Your task to perform on an android device: Clear all items from cart on walmart.com. Add "bose soundlink mini" to the cart on walmart.com, then select checkout. Image 0: 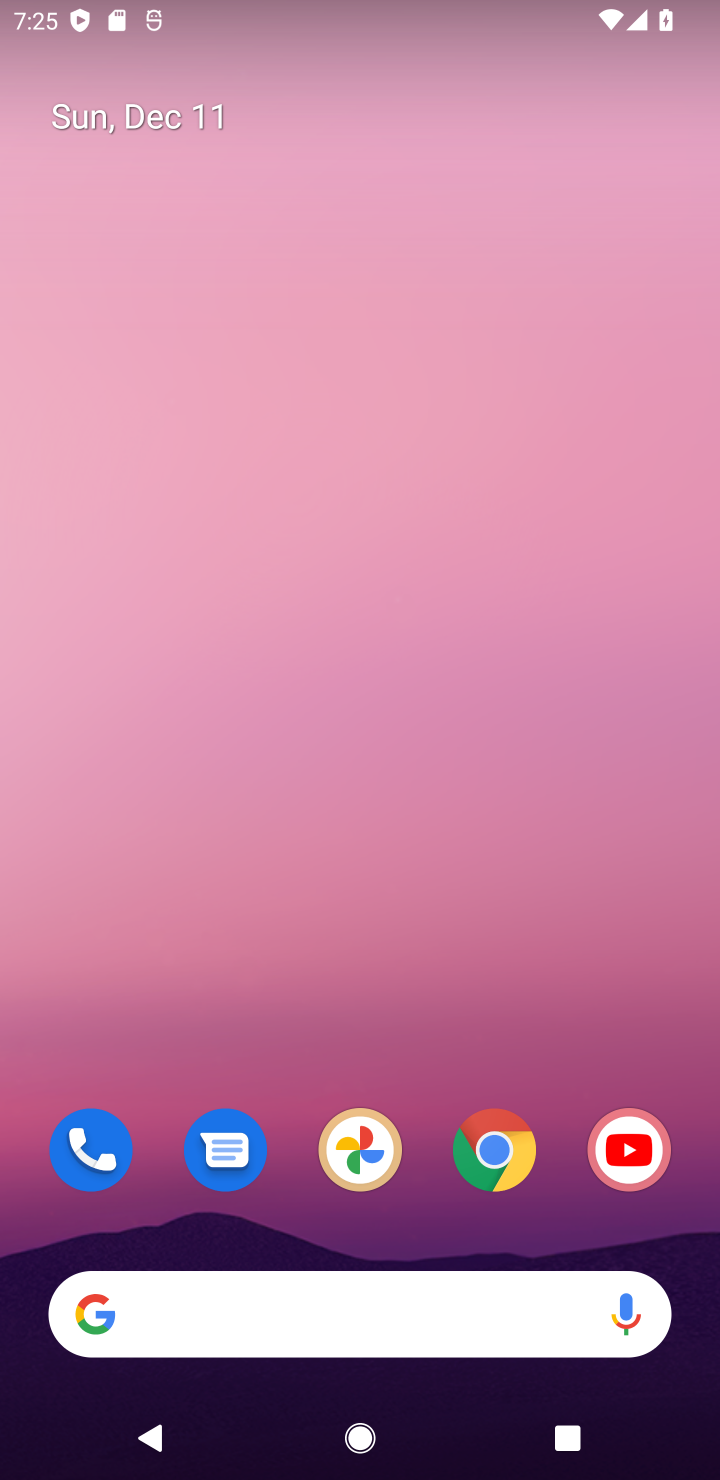
Step 0: click (493, 1154)
Your task to perform on an android device: Clear all items from cart on walmart.com. Add "bose soundlink mini" to the cart on walmart.com, then select checkout. Image 1: 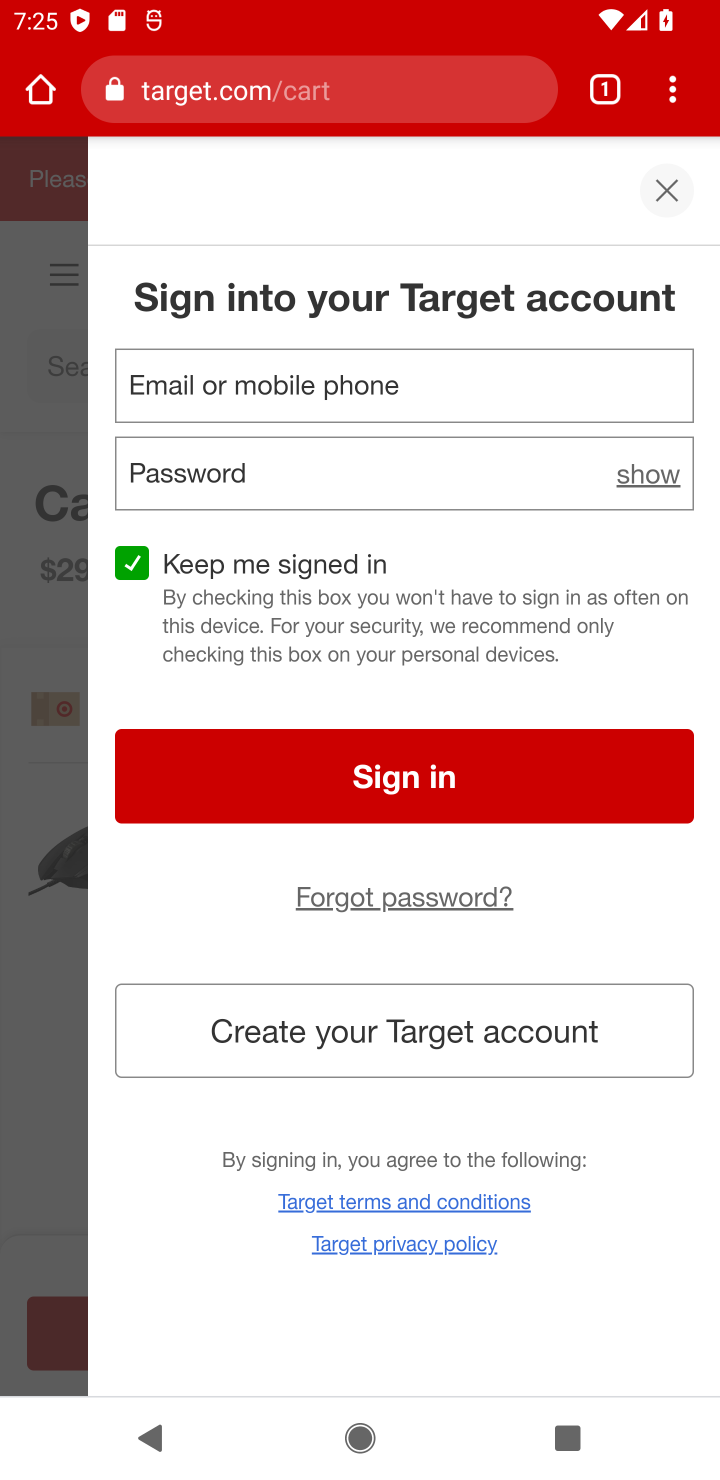
Step 1: click (459, 91)
Your task to perform on an android device: Clear all items from cart on walmart.com. Add "bose soundlink mini" to the cart on walmart.com, then select checkout. Image 2: 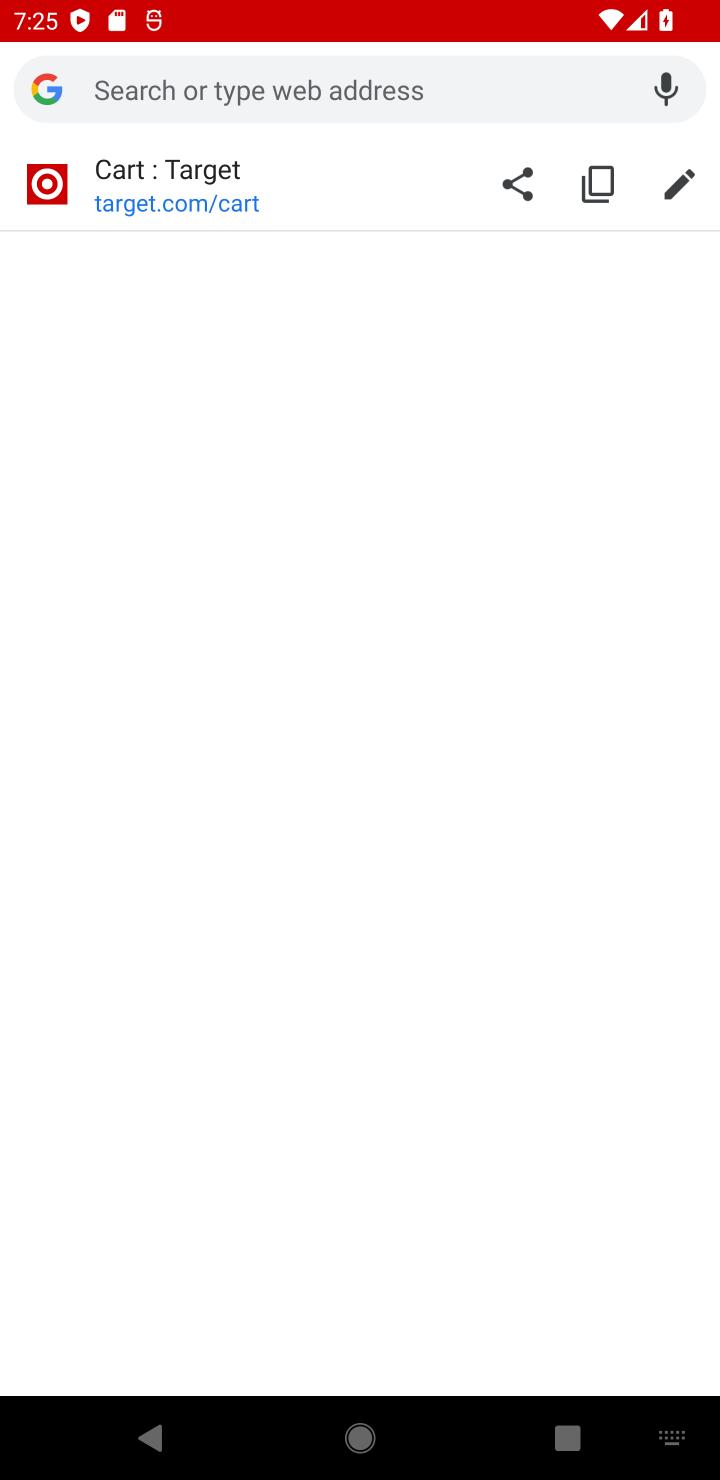
Step 2: type "walmart.com"
Your task to perform on an android device: Clear all items from cart on walmart.com. Add "bose soundlink mini" to the cart on walmart.com, then select checkout. Image 3: 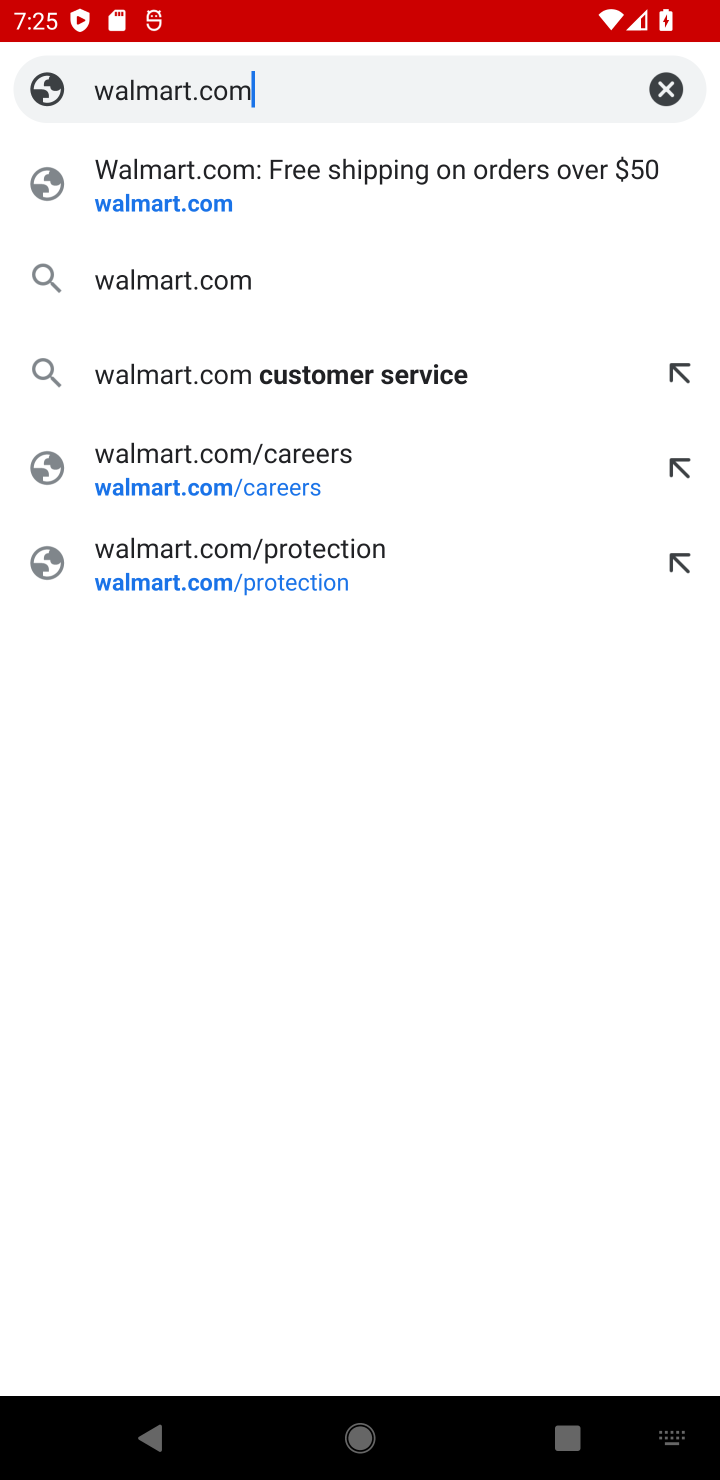
Step 3: click (213, 210)
Your task to perform on an android device: Clear all items from cart on walmart.com. Add "bose soundlink mini" to the cart on walmart.com, then select checkout. Image 4: 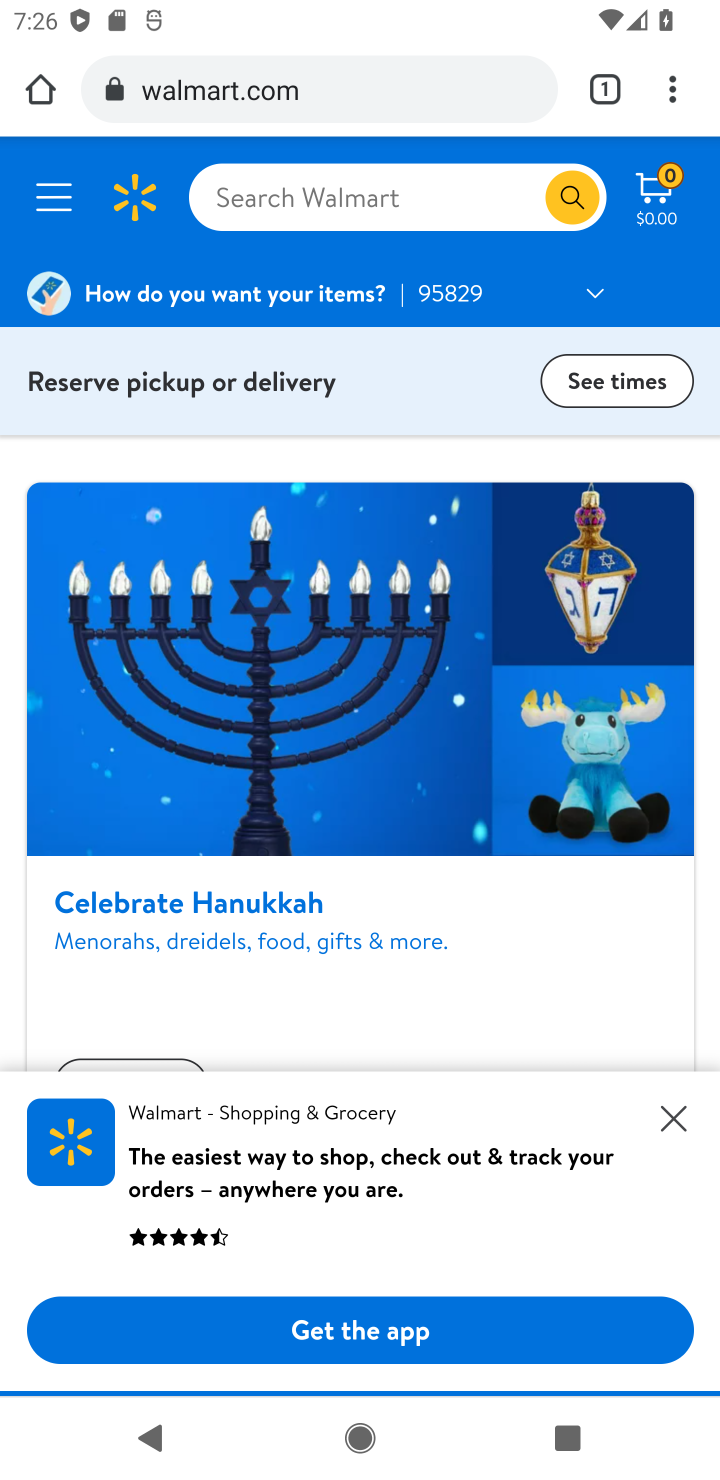
Step 4: click (663, 202)
Your task to perform on an android device: Clear all items from cart on walmart.com. Add "bose soundlink mini" to the cart on walmart.com, then select checkout. Image 5: 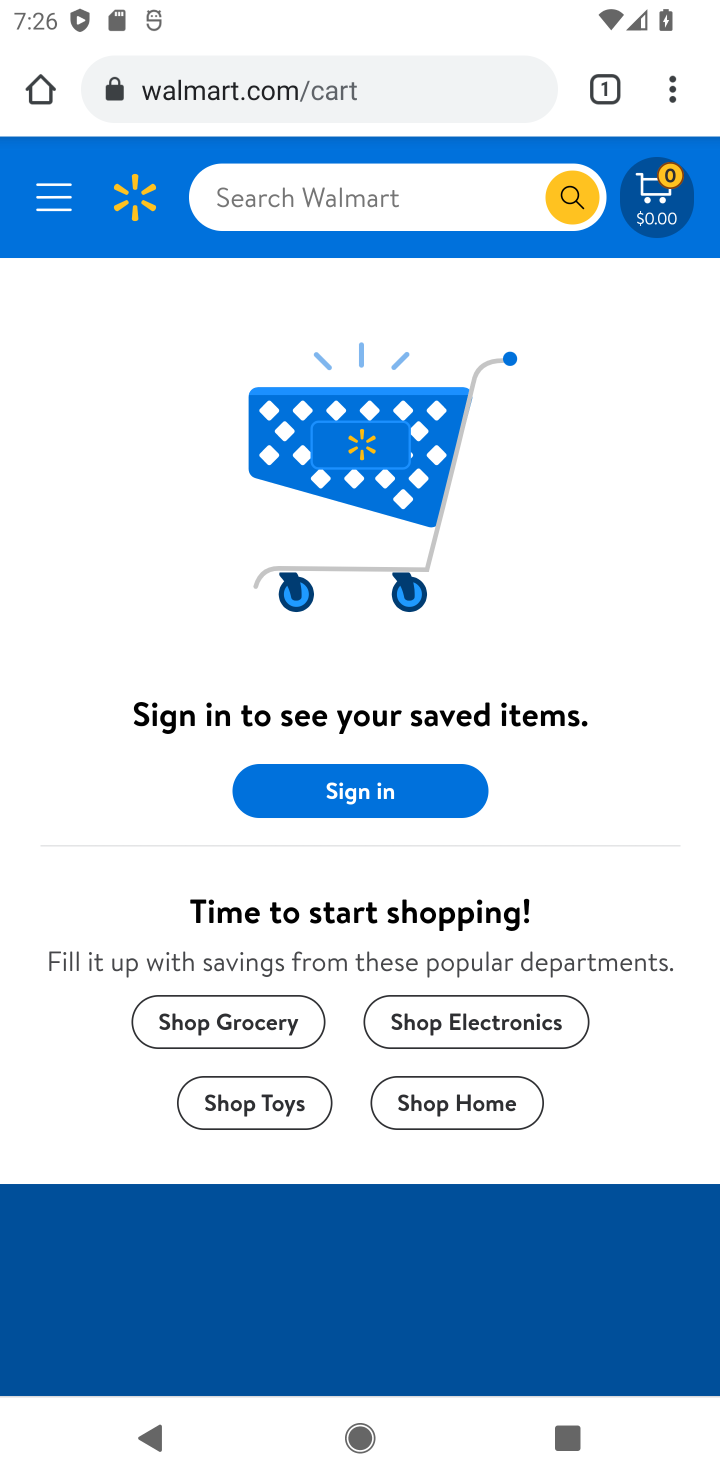
Step 5: click (442, 224)
Your task to perform on an android device: Clear all items from cart on walmart.com. Add "bose soundlink mini" to the cart on walmart.com, then select checkout. Image 6: 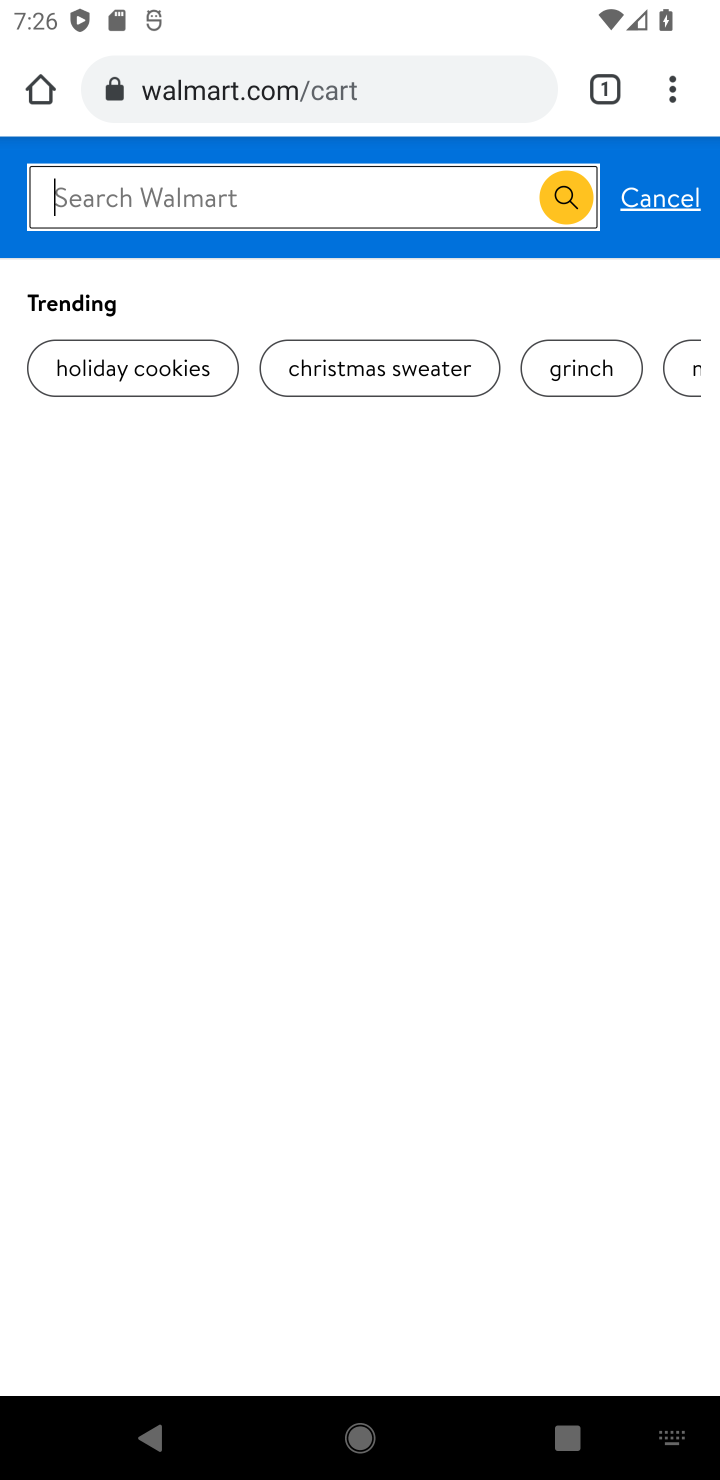
Step 6: type "bose soundlink mini"
Your task to perform on an android device: Clear all items from cart on walmart.com. Add "bose soundlink mini" to the cart on walmart.com, then select checkout. Image 7: 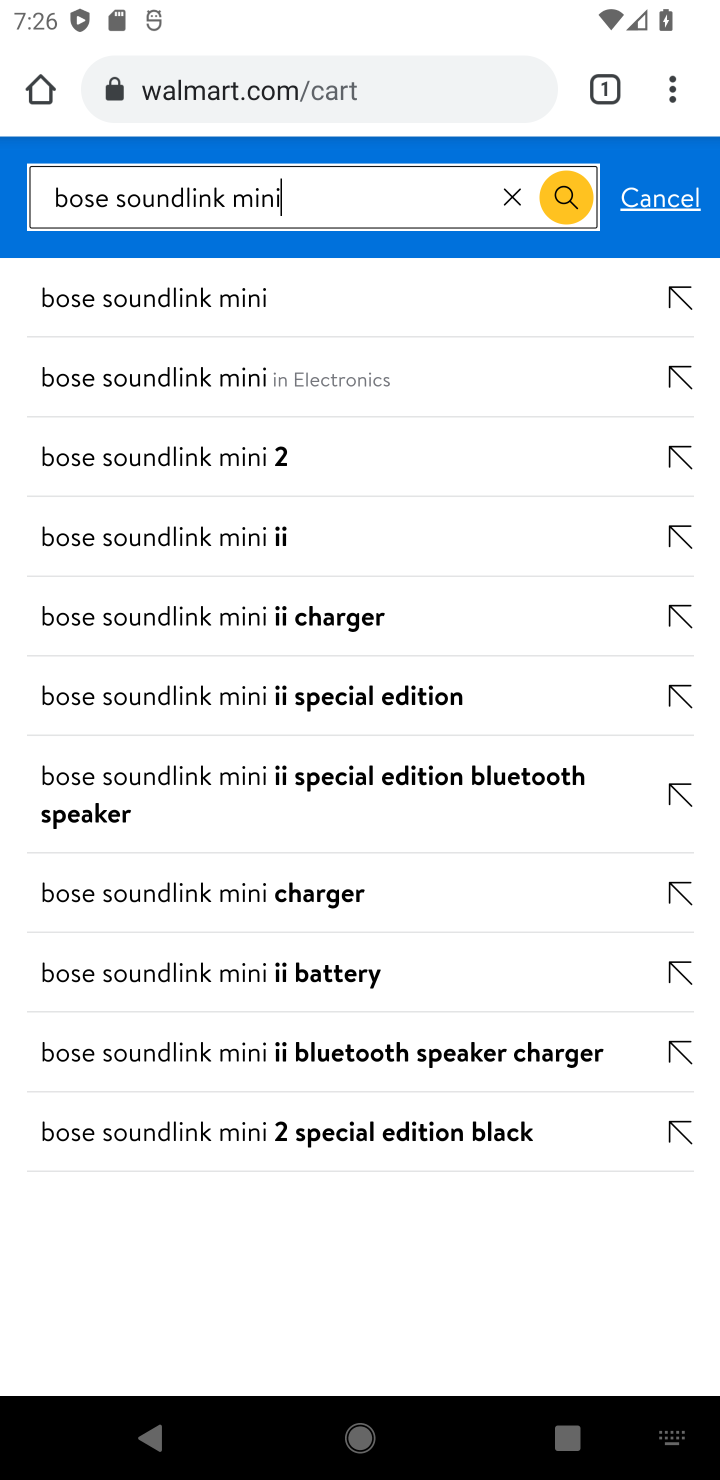
Step 7: click (212, 292)
Your task to perform on an android device: Clear all items from cart on walmart.com. Add "bose soundlink mini" to the cart on walmart.com, then select checkout. Image 8: 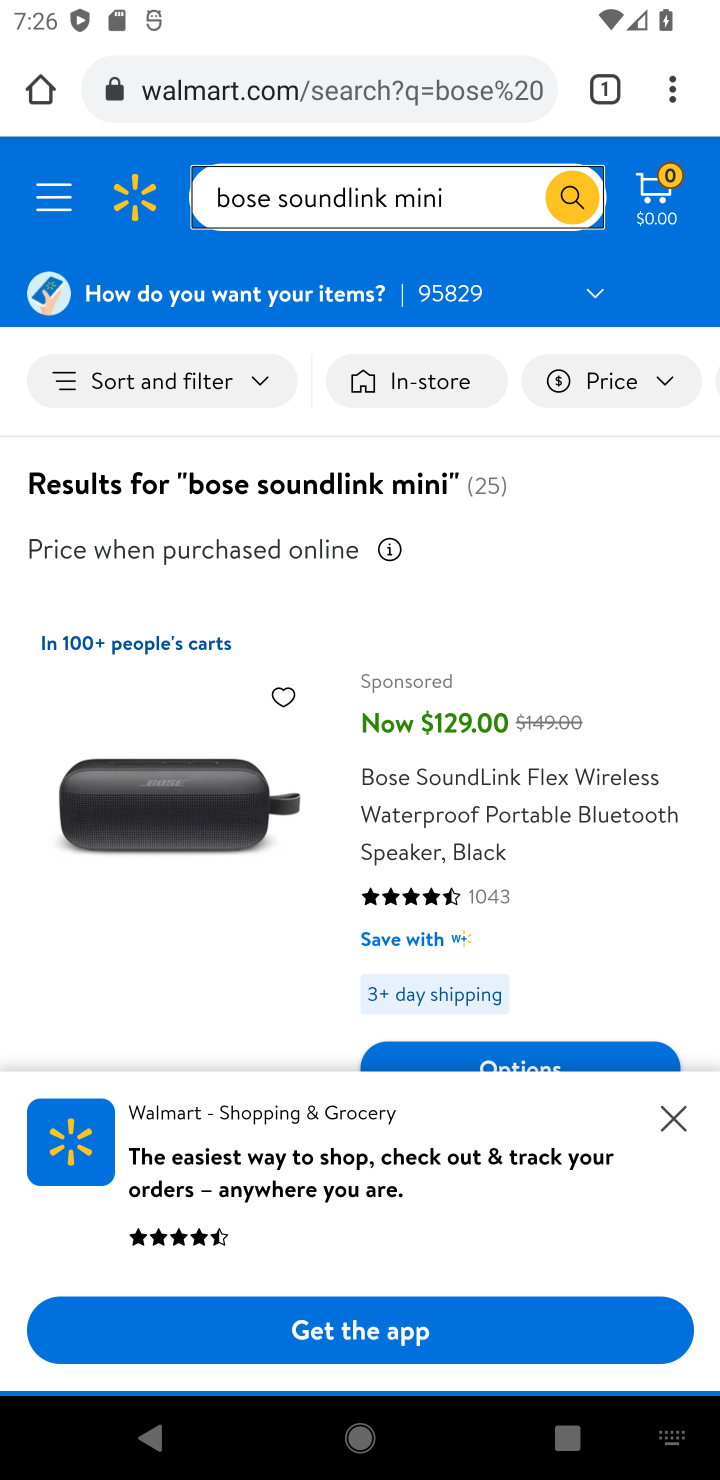
Step 8: click (665, 1125)
Your task to perform on an android device: Clear all items from cart on walmart.com. Add "bose soundlink mini" to the cart on walmart.com, then select checkout. Image 9: 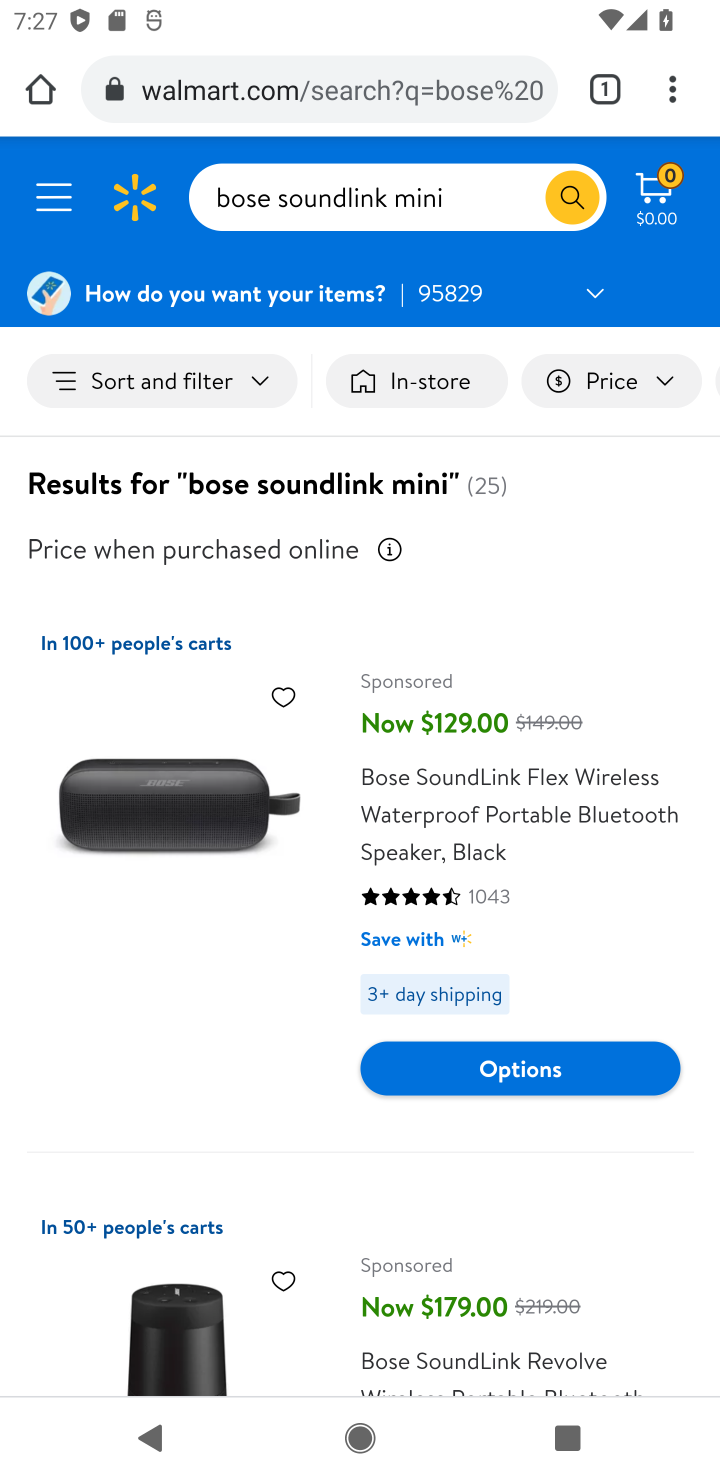
Step 9: drag from (375, 1188) to (438, 714)
Your task to perform on an android device: Clear all items from cart on walmart.com. Add "bose soundlink mini" to the cart on walmart.com, then select checkout. Image 10: 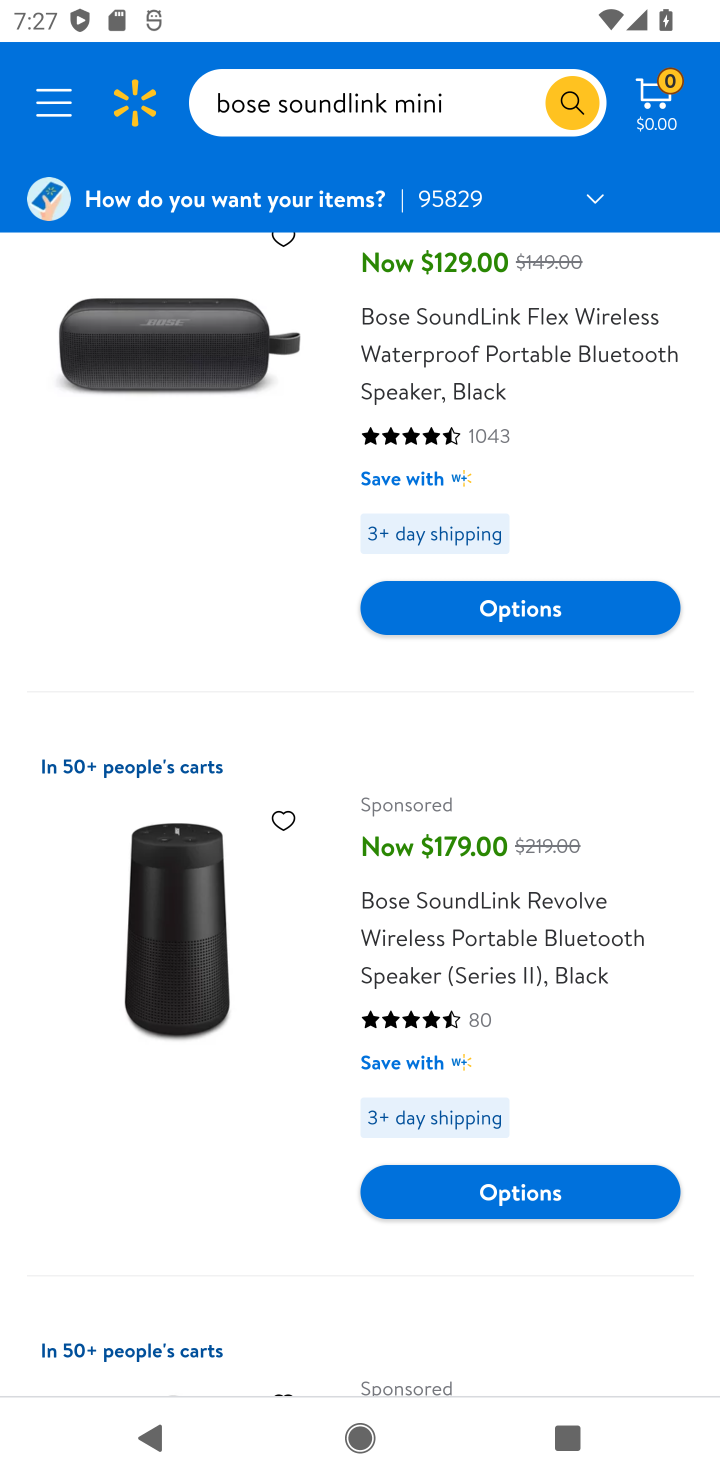
Step 10: drag from (426, 1318) to (498, 810)
Your task to perform on an android device: Clear all items from cart on walmart.com. Add "bose soundlink mini" to the cart on walmart.com, then select checkout. Image 11: 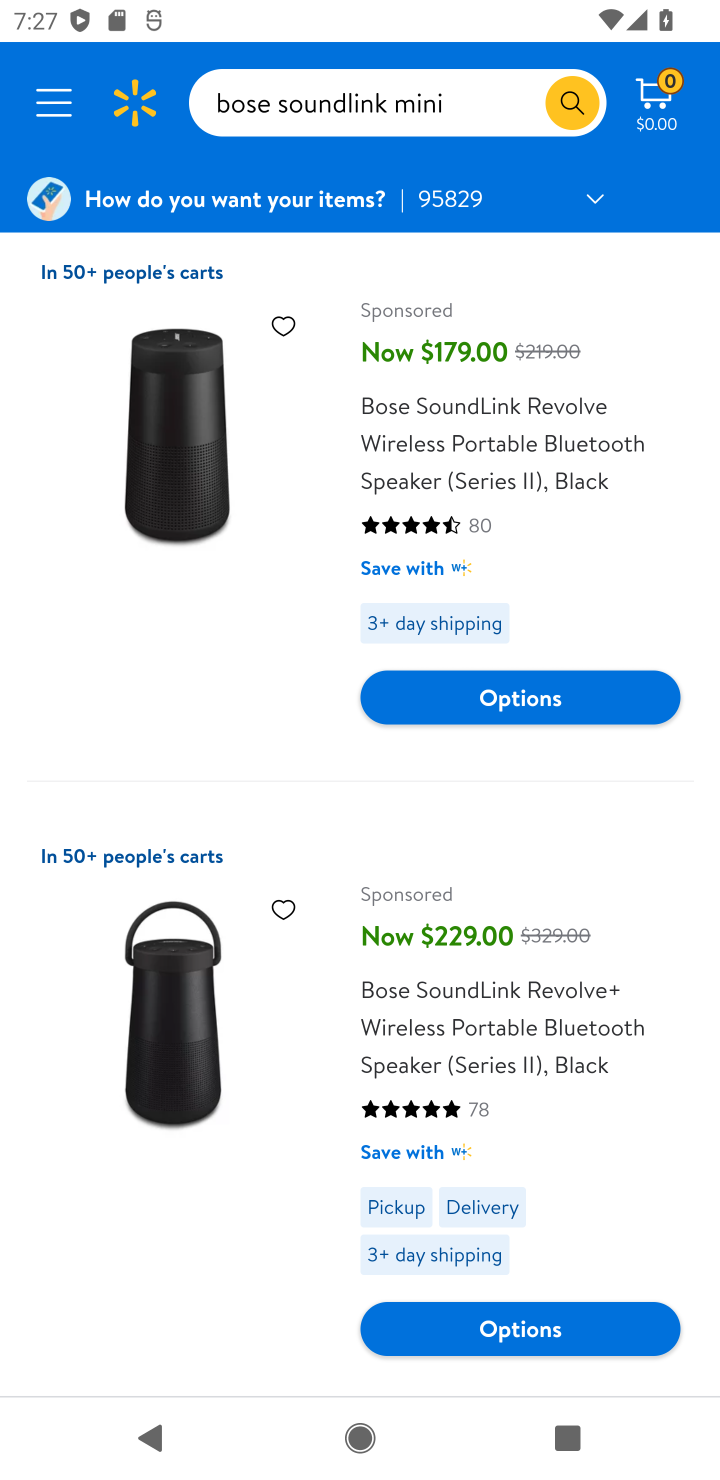
Step 11: drag from (500, 1248) to (523, 779)
Your task to perform on an android device: Clear all items from cart on walmart.com. Add "bose soundlink mini" to the cart on walmart.com, then select checkout. Image 12: 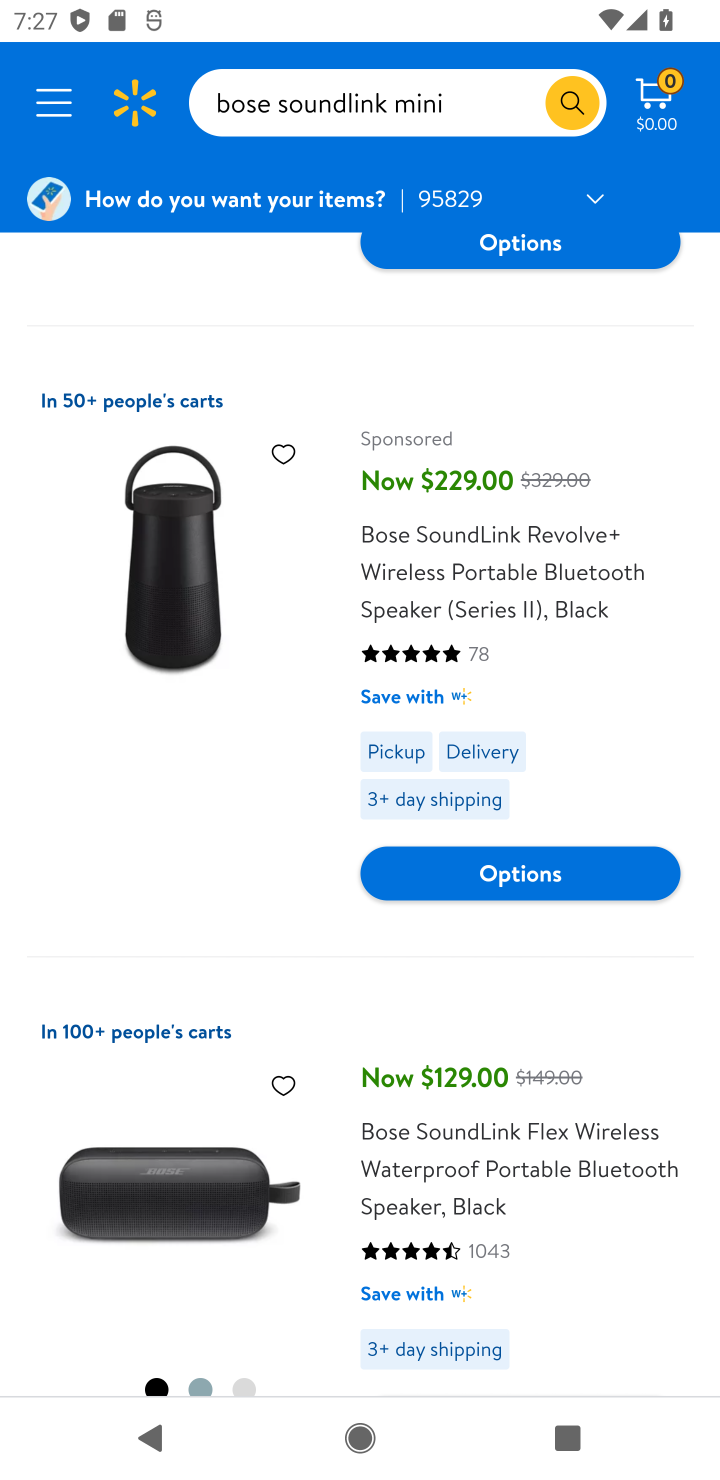
Step 12: drag from (440, 1249) to (468, 893)
Your task to perform on an android device: Clear all items from cart on walmart.com. Add "bose soundlink mini" to the cart on walmart.com, then select checkout. Image 13: 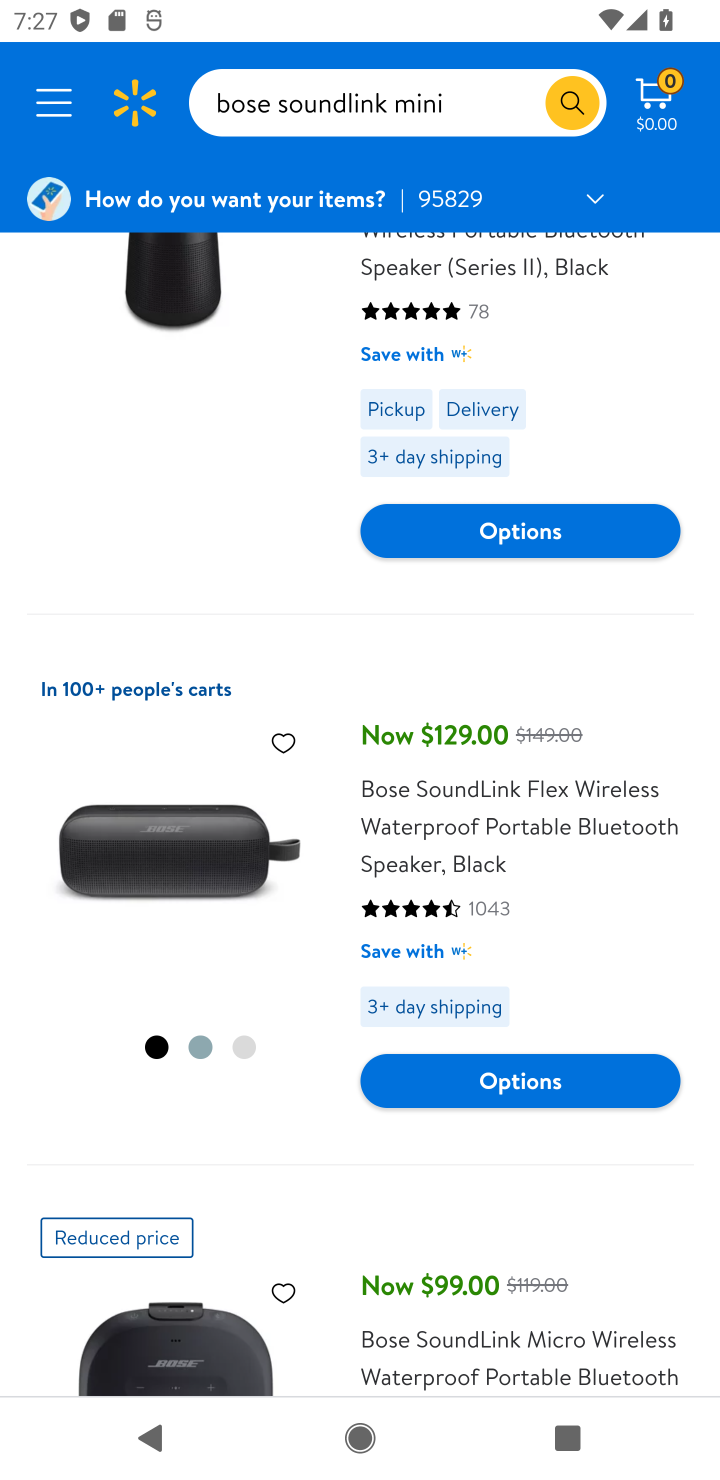
Step 13: drag from (427, 1220) to (464, 686)
Your task to perform on an android device: Clear all items from cart on walmart.com. Add "bose soundlink mini" to the cart on walmart.com, then select checkout. Image 14: 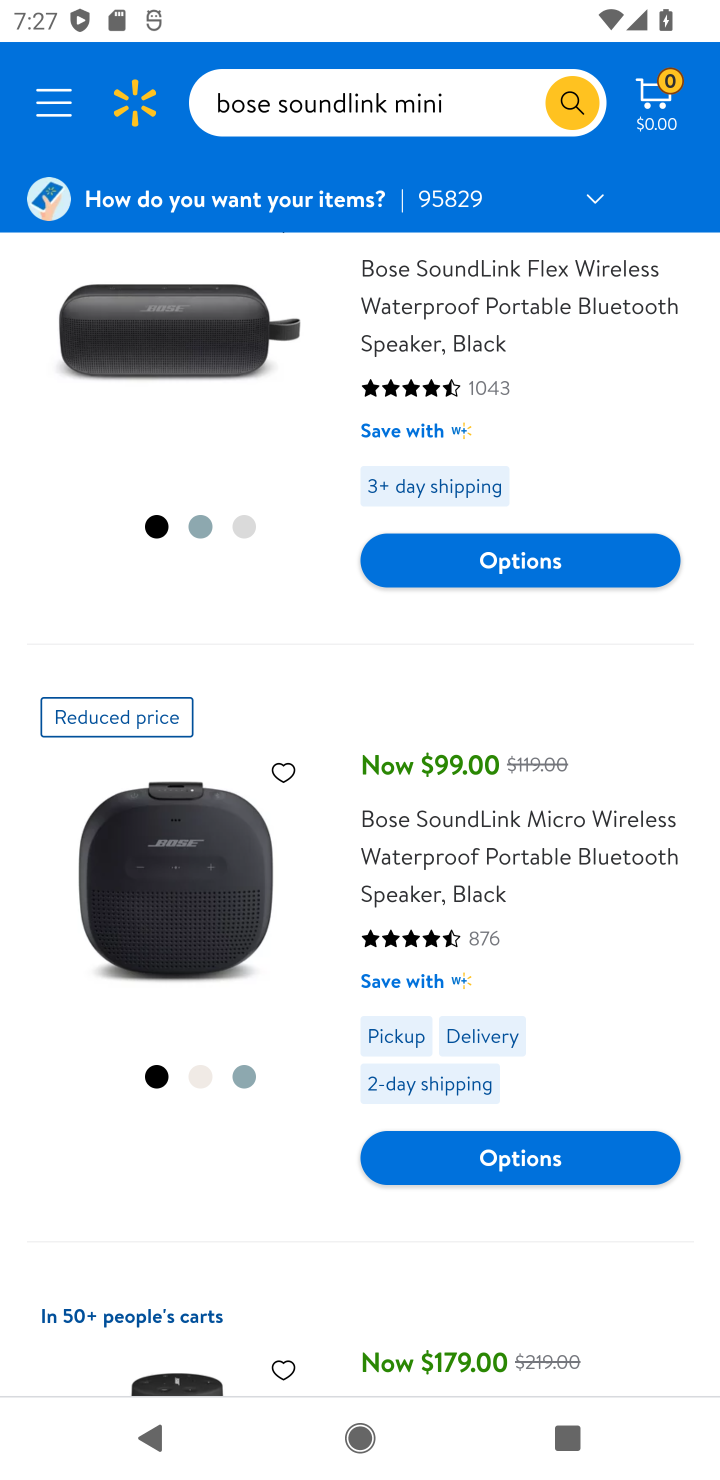
Step 14: drag from (472, 336) to (446, 975)
Your task to perform on an android device: Clear all items from cart on walmart.com. Add "bose soundlink mini" to the cart on walmart.com, then select checkout. Image 15: 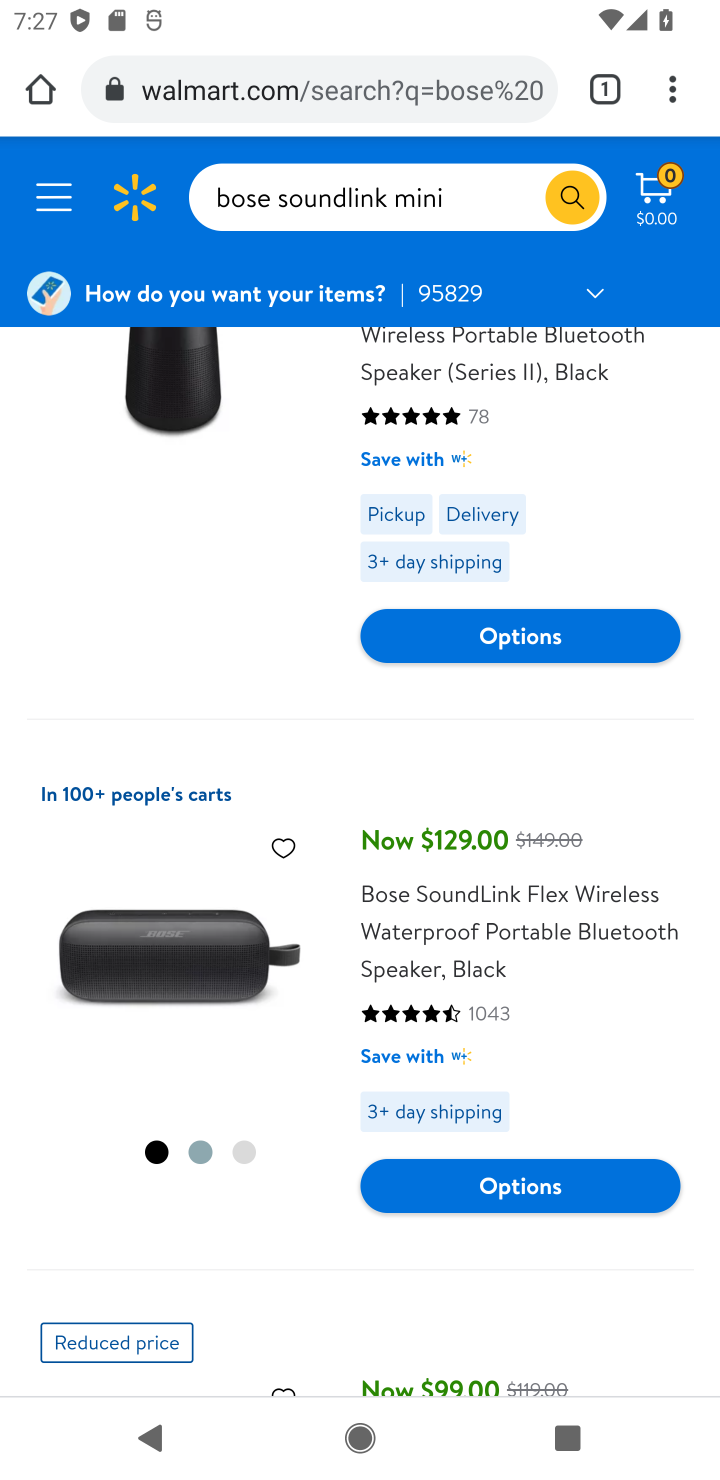
Step 15: click (492, 345)
Your task to perform on an android device: Clear all items from cart on walmart.com. Add "bose soundlink mini" to the cart on walmart.com, then select checkout. Image 16: 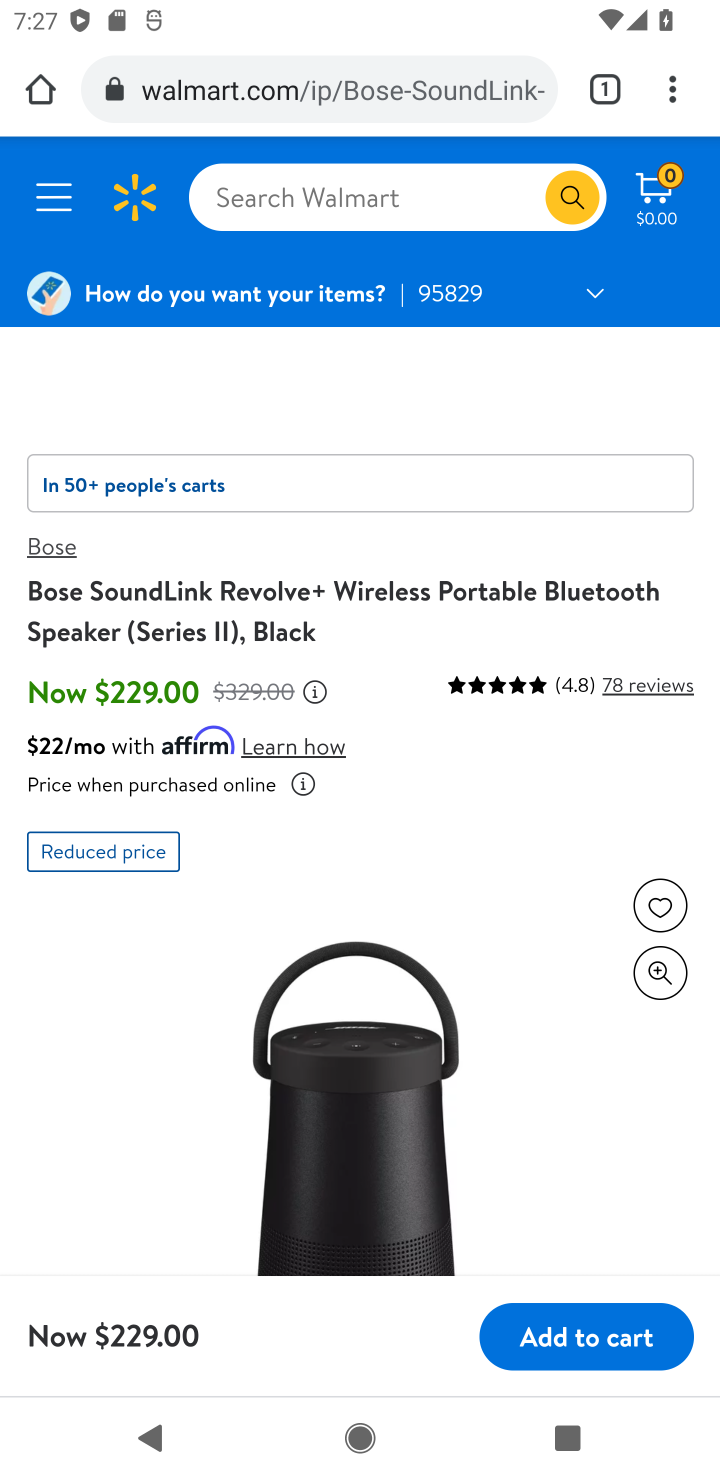
Step 16: click (578, 1353)
Your task to perform on an android device: Clear all items from cart on walmart.com. Add "bose soundlink mini" to the cart on walmart.com, then select checkout. Image 17: 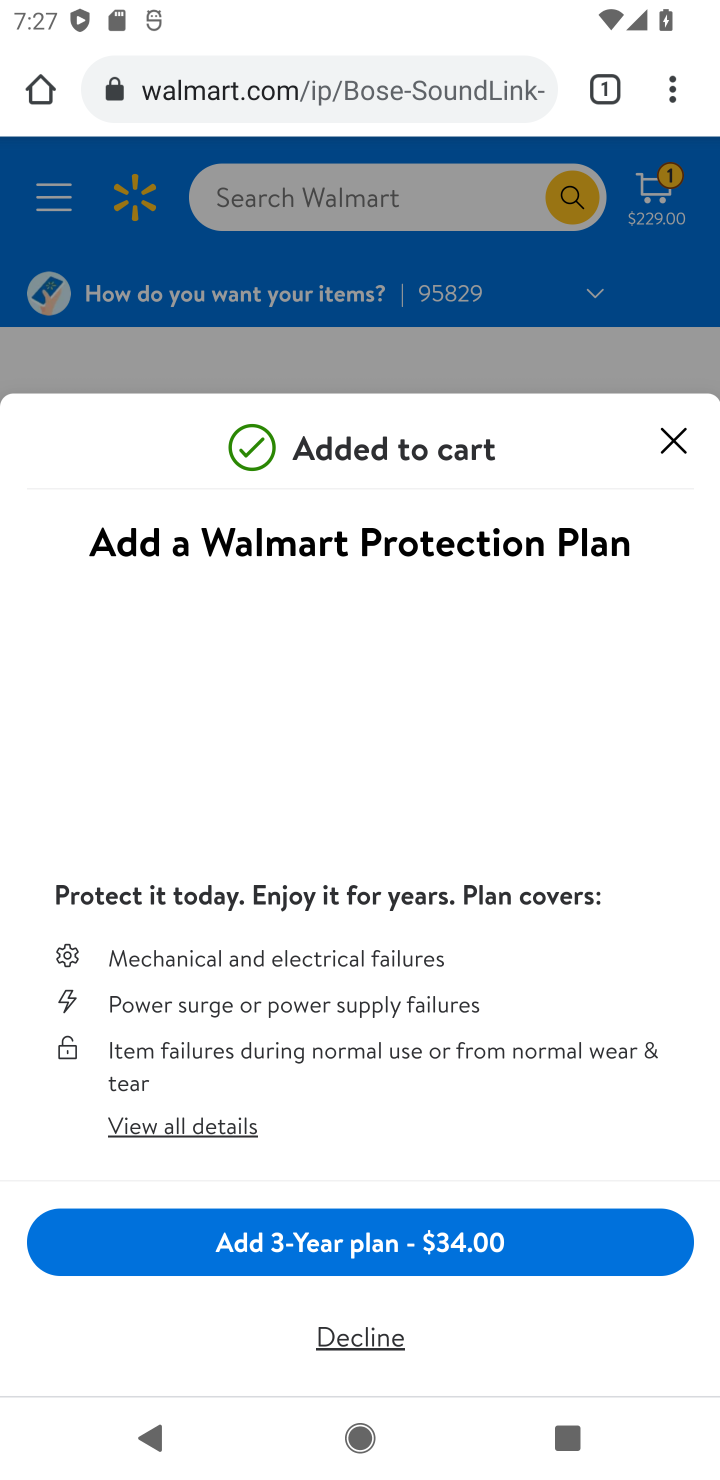
Step 17: click (363, 1344)
Your task to perform on an android device: Clear all items from cart on walmart.com. Add "bose soundlink mini" to the cart on walmart.com, then select checkout. Image 18: 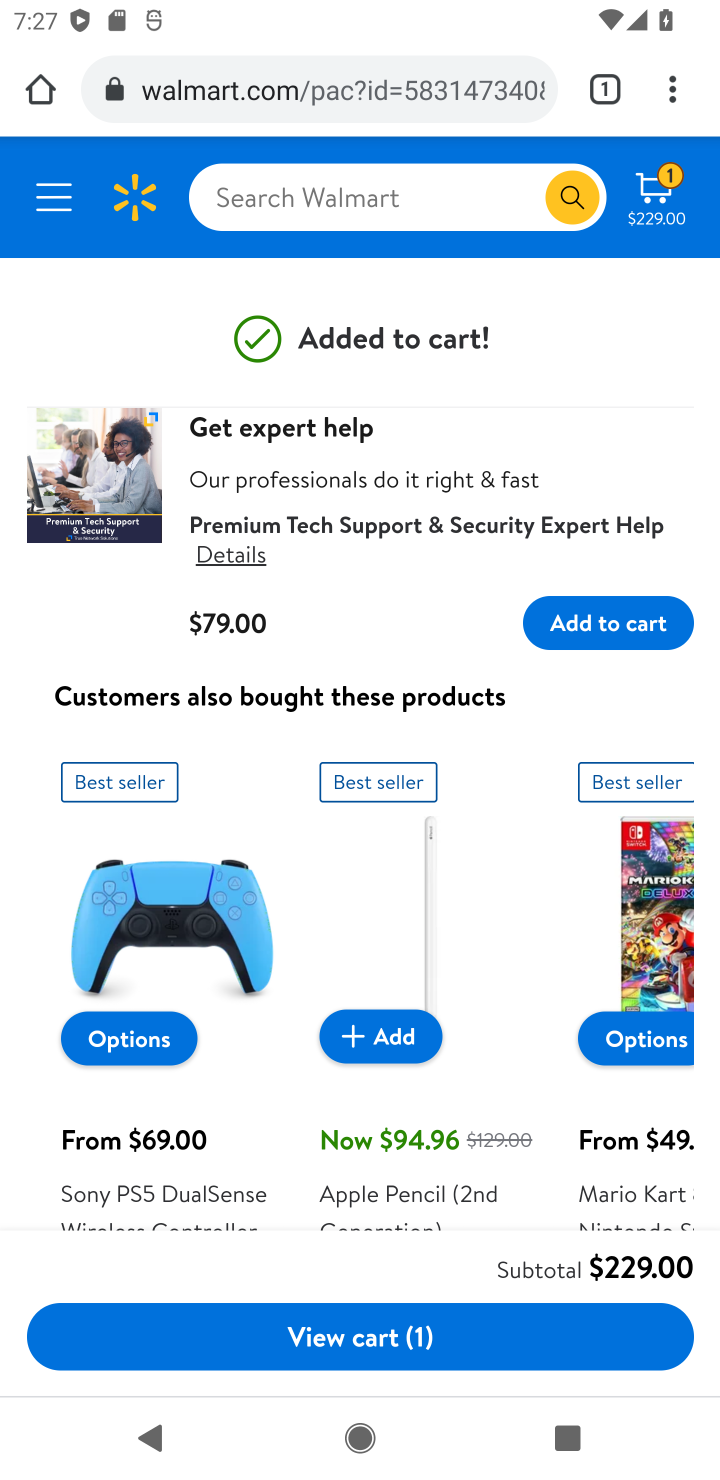
Step 18: click (395, 1333)
Your task to perform on an android device: Clear all items from cart on walmart.com. Add "bose soundlink mini" to the cart on walmart.com, then select checkout. Image 19: 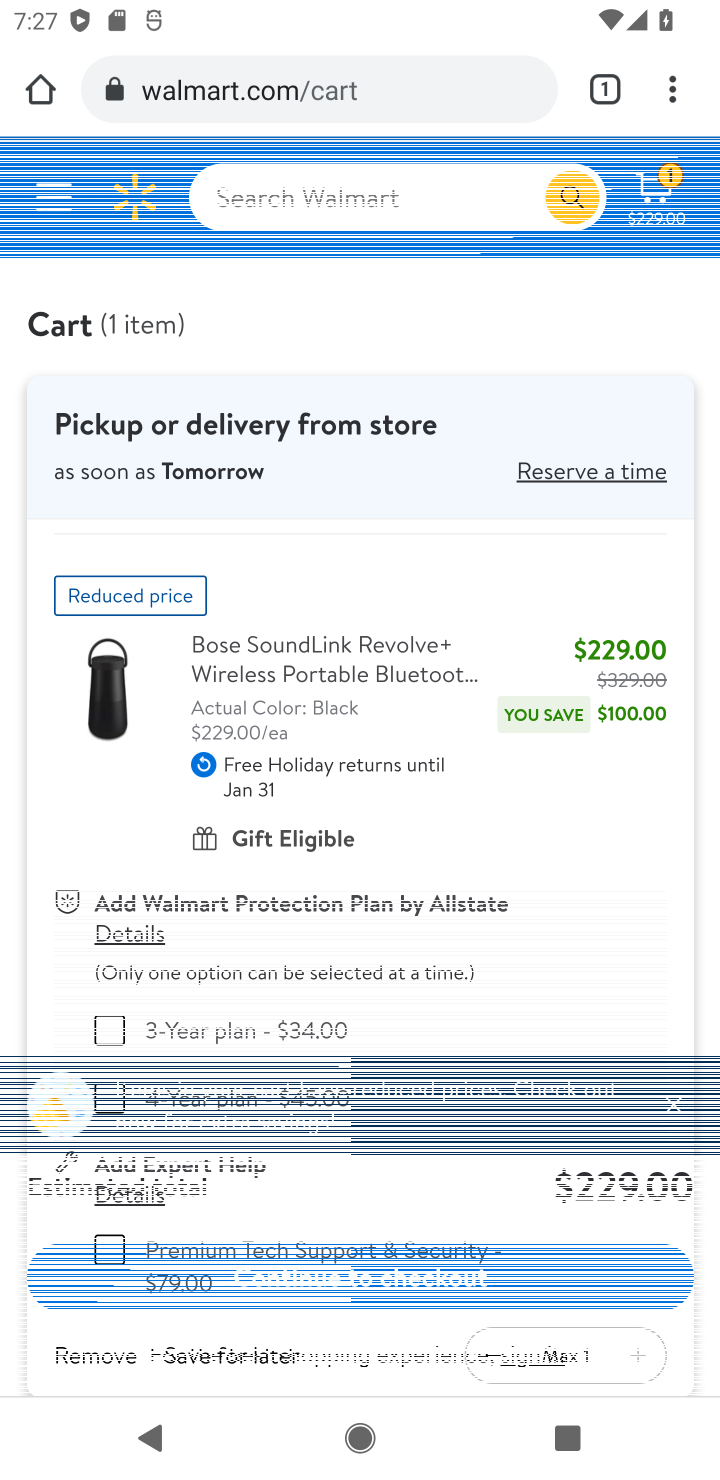
Step 19: click (361, 1282)
Your task to perform on an android device: Clear all items from cart on walmart.com. Add "bose soundlink mini" to the cart on walmart.com, then select checkout. Image 20: 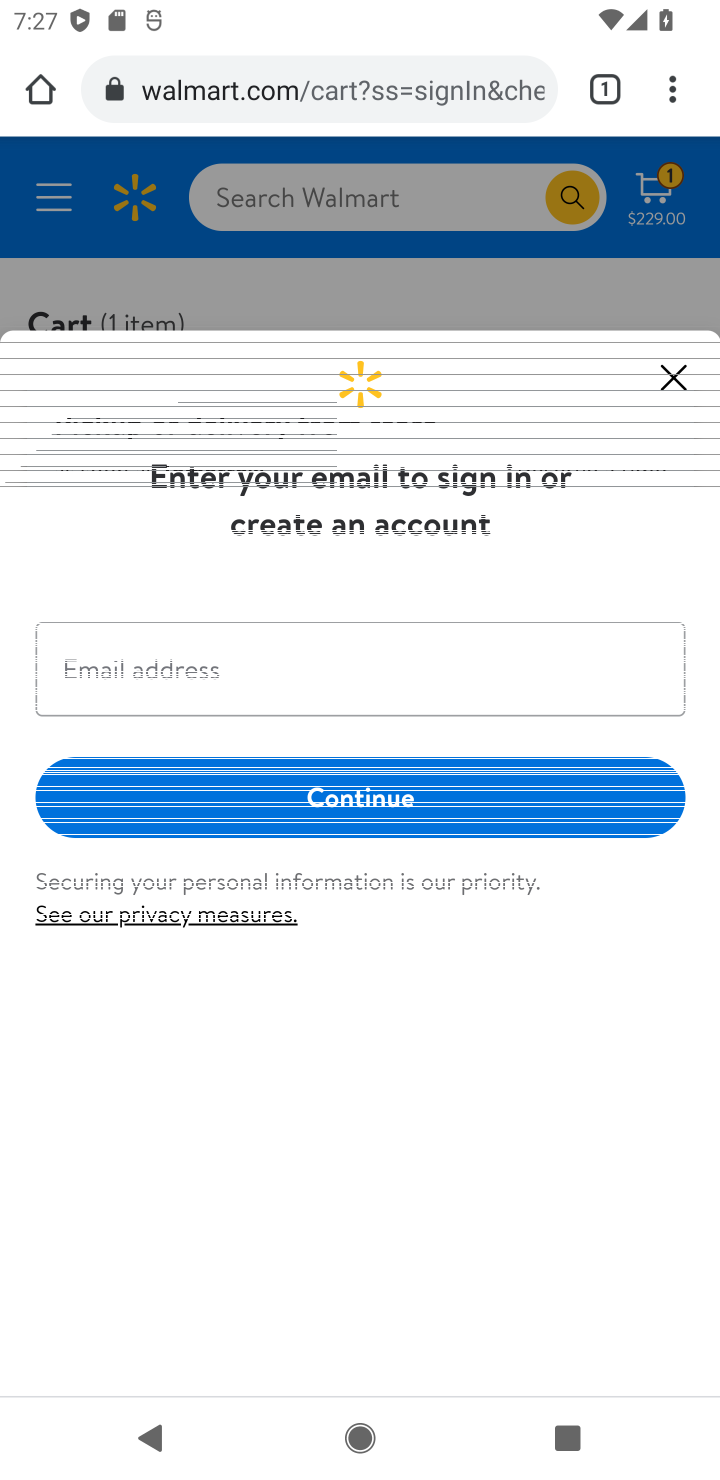
Step 20: task complete